Your task to perform on an android device: clear history in the chrome app Image 0: 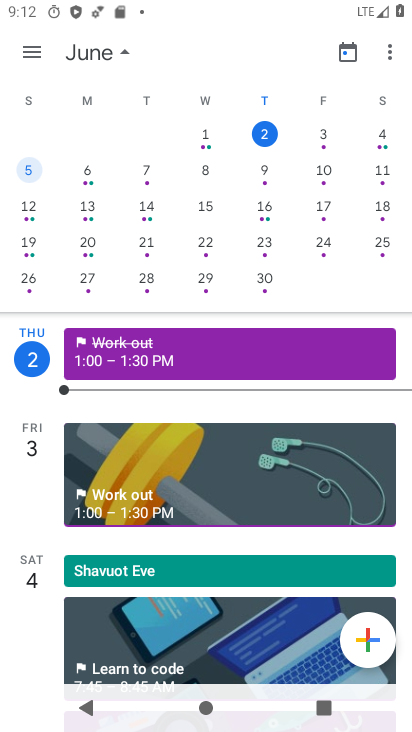
Step 0: press home button
Your task to perform on an android device: clear history in the chrome app Image 1: 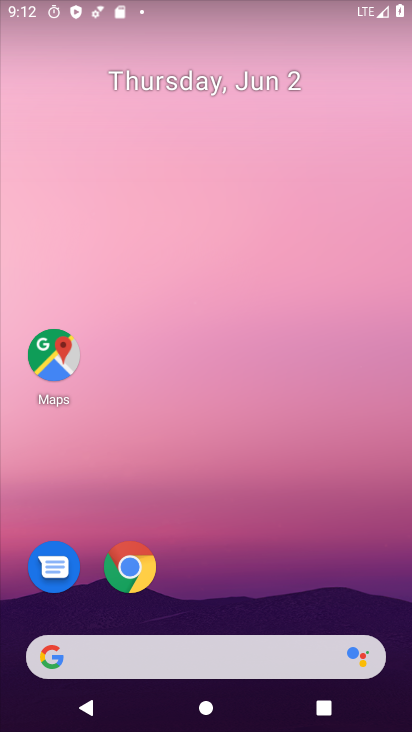
Step 1: drag from (341, 608) to (307, 62)
Your task to perform on an android device: clear history in the chrome app Image 2: 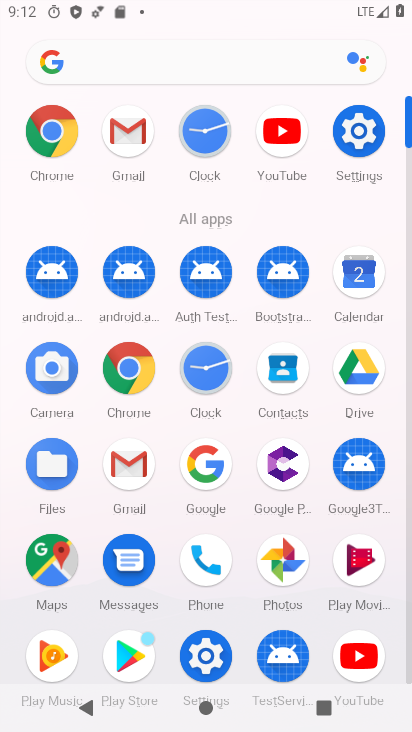
Step 2: click (114, 383)
Your task to perform on an android device: clear history in the chrome app Image 3: 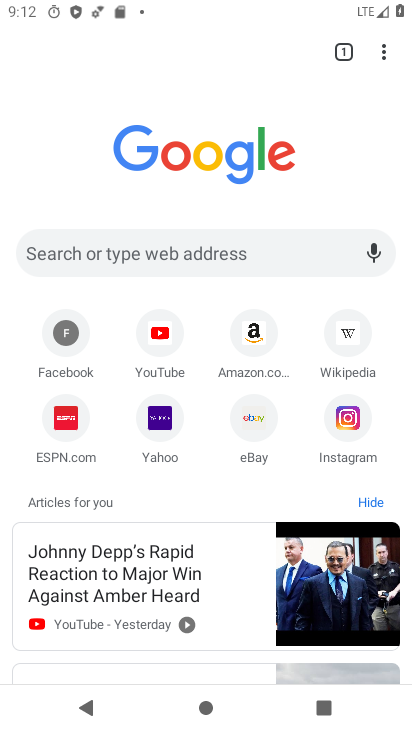
Step 3: drag from (392, 57) to (299, 276)
Your task to perform on an android device: clear history in the chrome app Image 4: 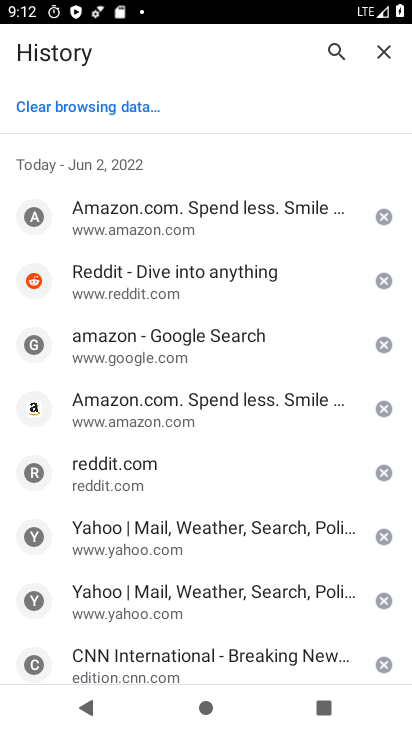
Step 4: click (72, 110)
Your task to perform on an android device: clear history in the chrome app Image 5: 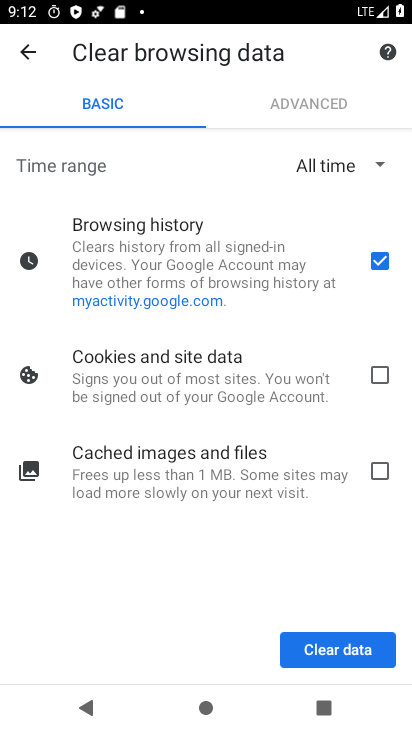
Step 5: click (386, 374)
Your task to perform on an android device: clear history in the chrome app Image 6: 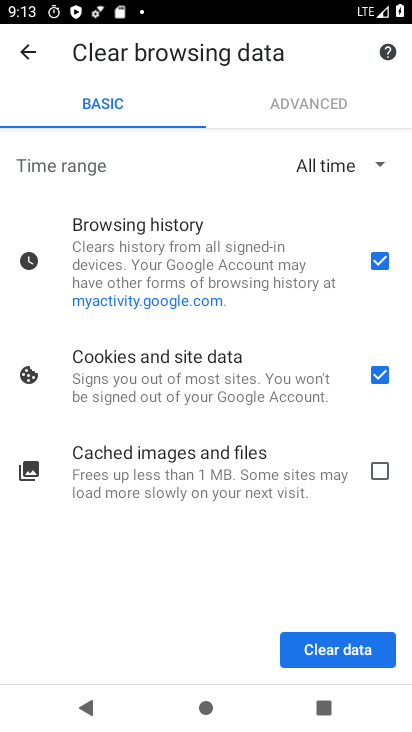
Step 6: click (354, 655)
Your task to perform on an android device: clear history in the chrome app Image 7: 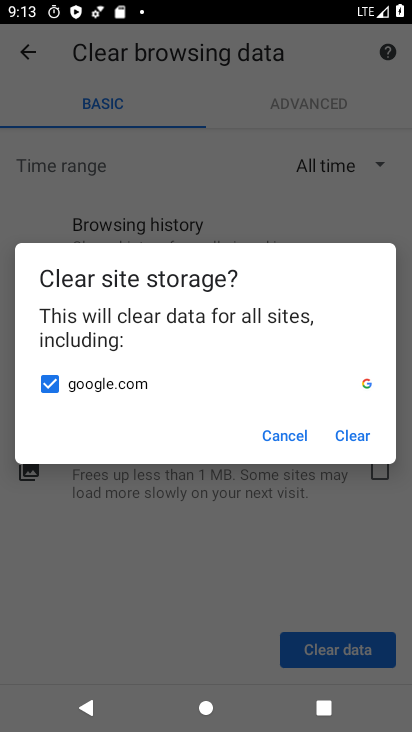
Step 7: click (354, 436)
Your task to perform on an android device: clear history in the chrome app Image 8: 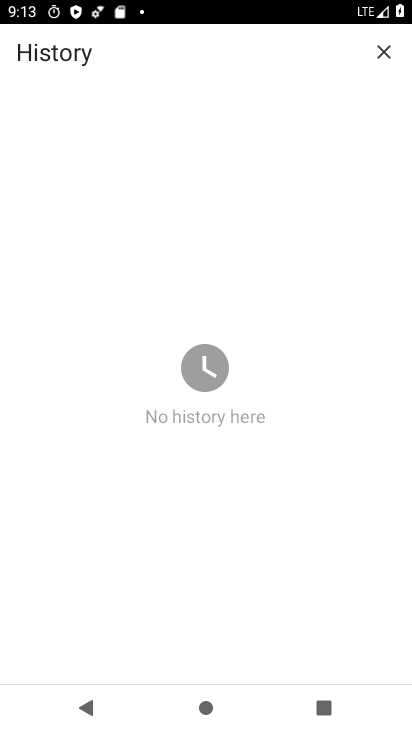
Step 8: task complete